Your task to perform on an android device: Open Google Chrome Image 0: 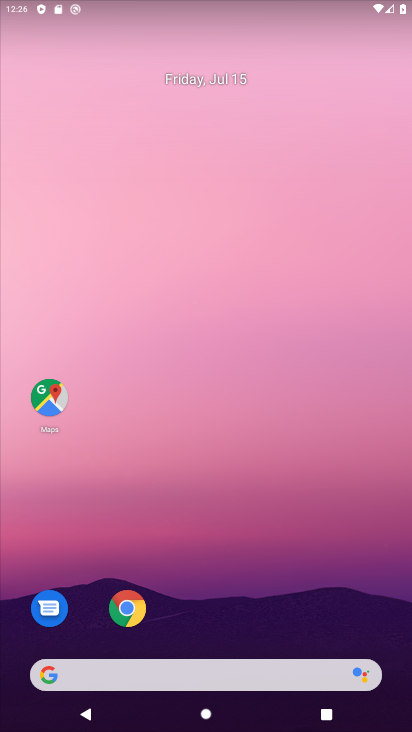
Step 0: drag from (302, 608) to (288, 95)
Your task to perform on an android device: Open Google Chrome Image 1: 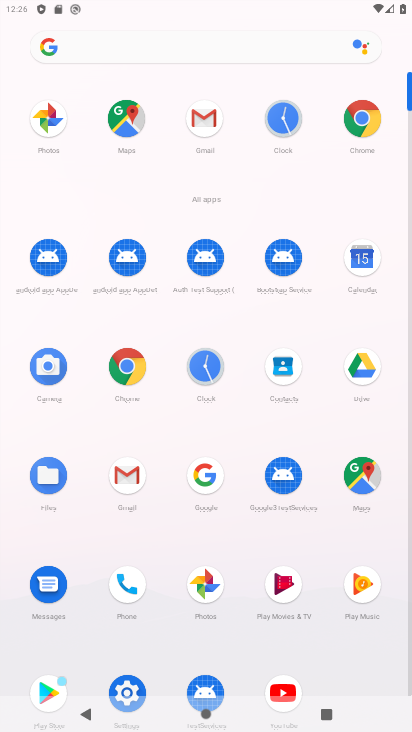
Step 1: click (128, 376)
Your task to perform on an android device: Open Google Chrome Image 2: 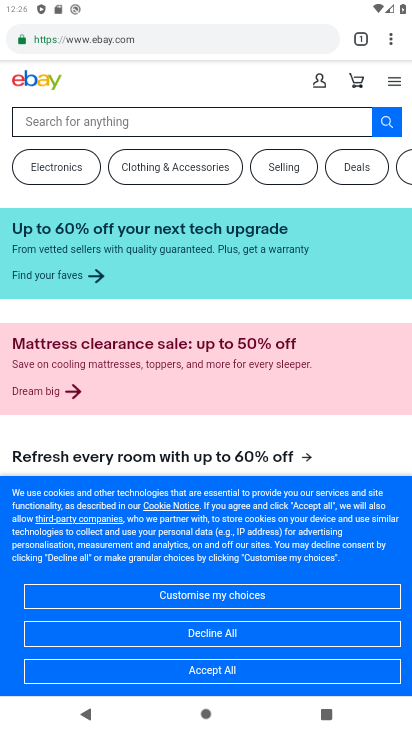
Step 2: task complete